Your task to perform on an android device: set default search engine in the chrome app Image 0: 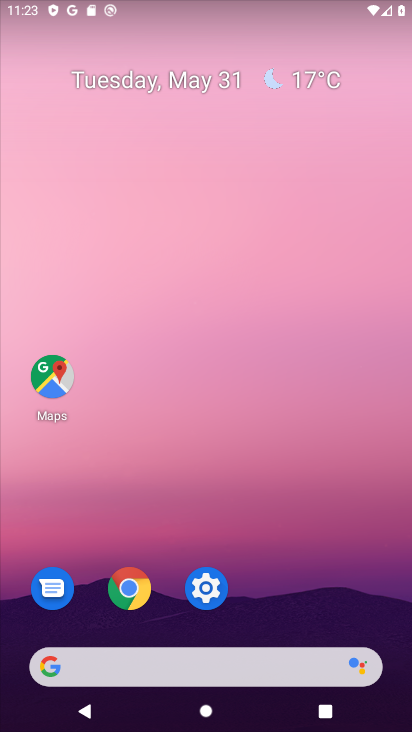
Step 0: click (137, 580)
Your task to perform on an android device: set default search engine in the chrome app Image 1: 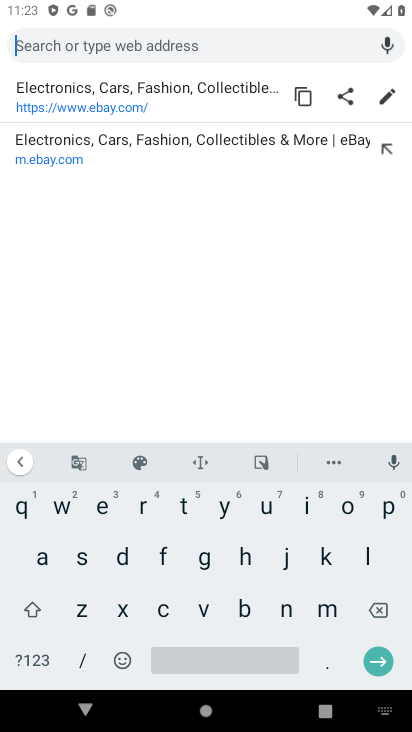
Step 1: press back button
Your task to perform on an android device: set default search engine in the chrome app Image 2: 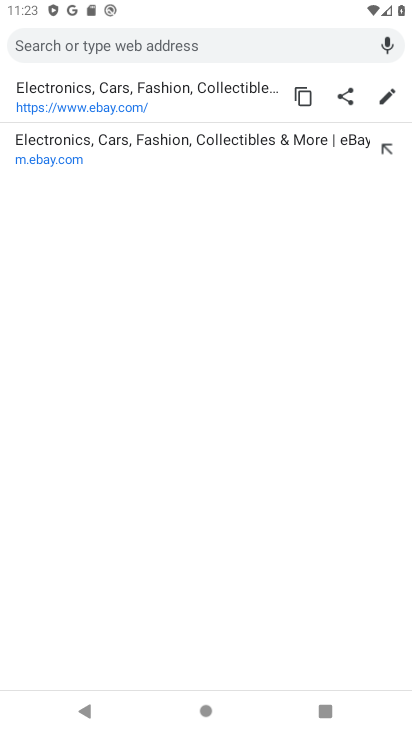
Step 2: press back button
Your task to perform on an android device: set default search engine in the chrome app Image 3: 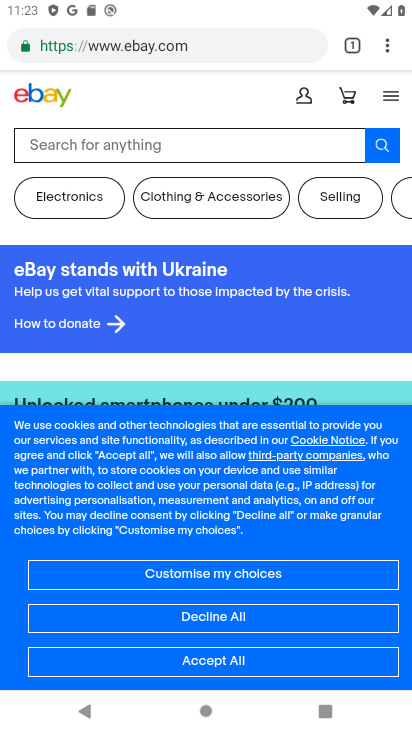
Step 3: click (382, 54)
Your task to perform on an android device: set default search engine in the chrome app Image 4: 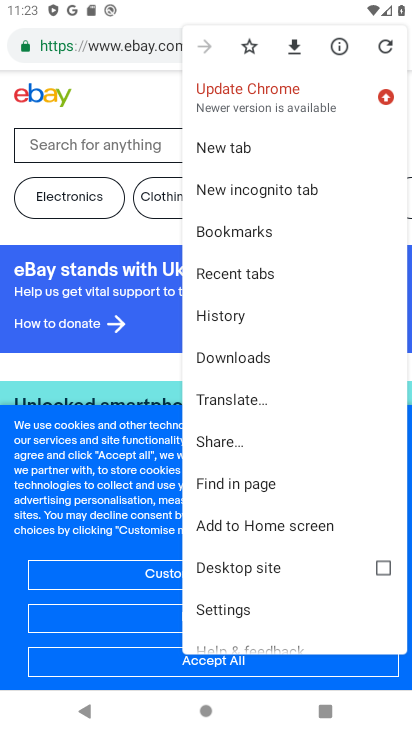
Step 4: click (239, 605)
Your task to perform on an android device: set default search engine in the chrome app Image 5: 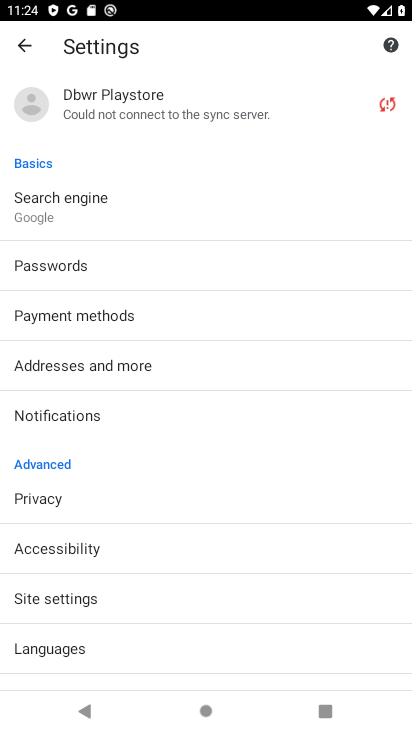
Step 5: click (104, 210)
Your task to perform on an android device: set default search engine in the chrome app Image 6: 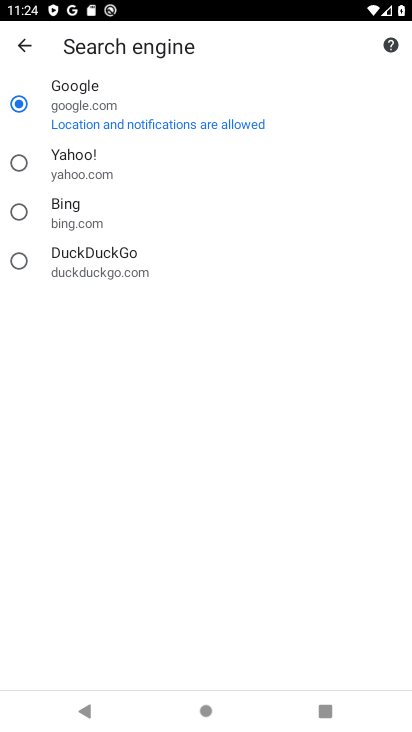
Step 6: task complete